Your task to perform on an android device: turn notification dots on Image 0: 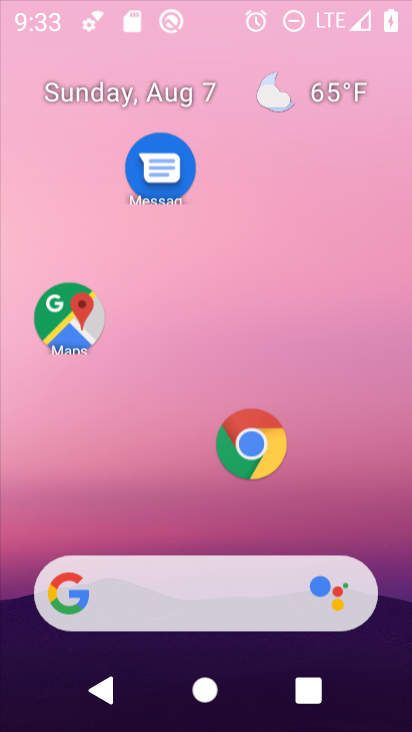
Step 0: press home button
Your task to perform on an android device: turn notification dots on Image 1: 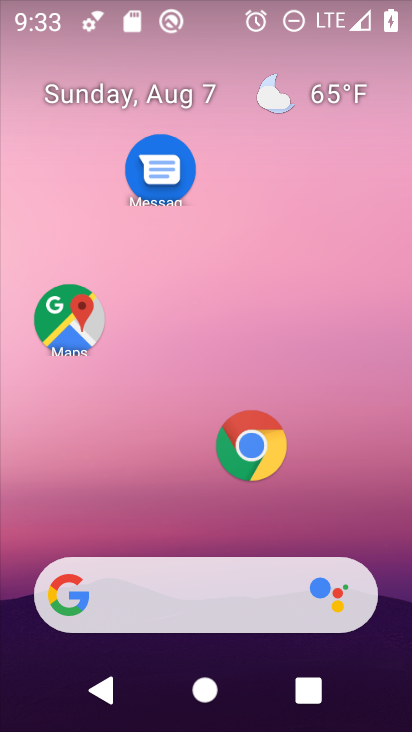
Step 1: drag from (302, 521) to (310, 54)
Your task to perform on an android device: turn notification dots on Image 2: 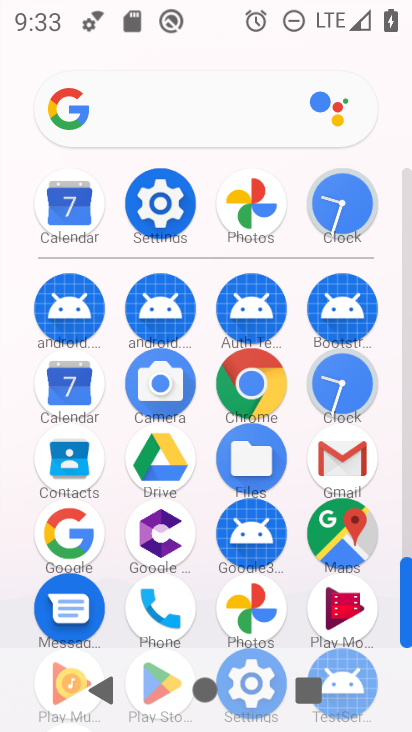
Step 2: click (155, 195)
Your task to perform on an android device: turn notification dots on Image 3: 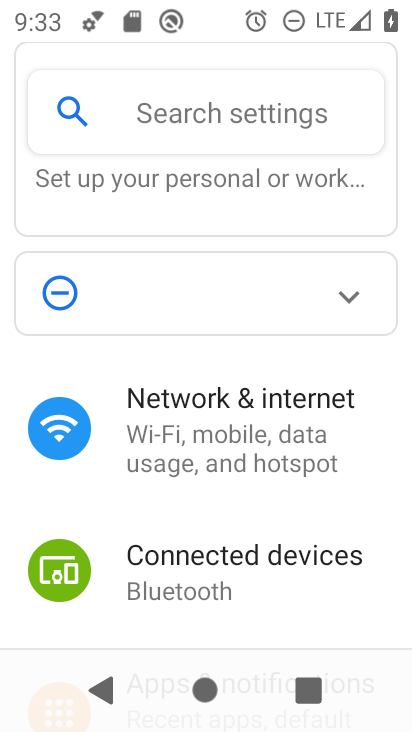
Step 3: drag from (259, 583) to (239, 154)
Your task to perform on an android device: turn notification dots on Image 4: 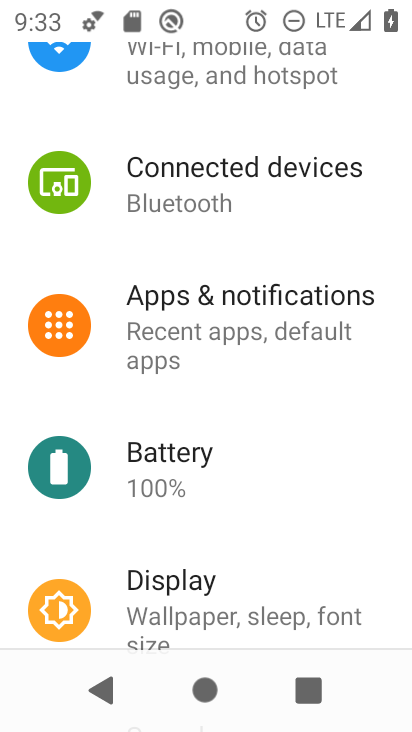
Step 4: click (220, 317)
Your task to perform on an android device: turn notification dots on Image 5: 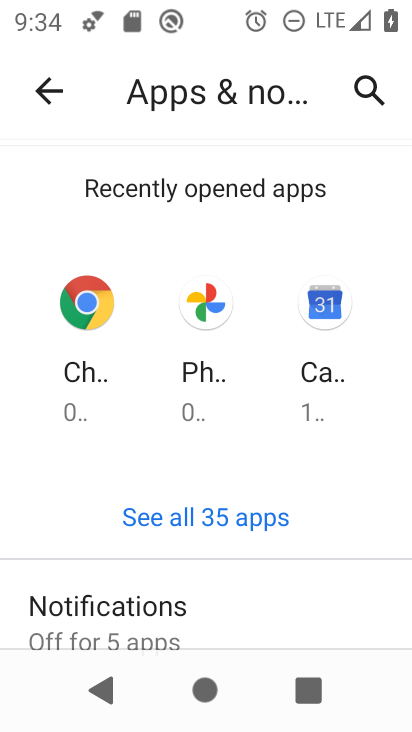
Step 5: click (213, 612)
Your task to perform on an android device: turn notification dots on Image 6: 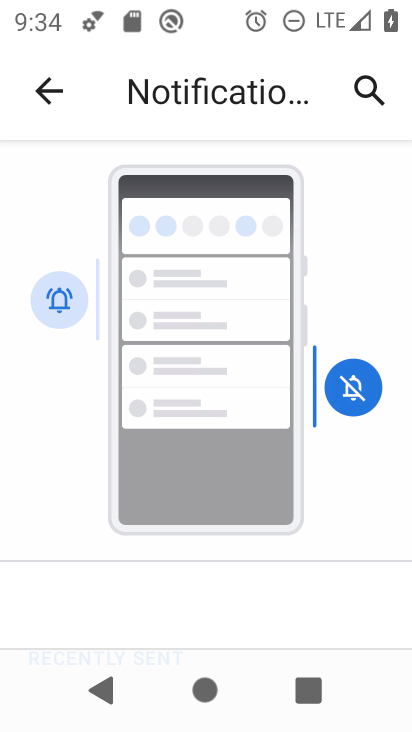
Step 6: drag from (214, 613) to (228, 82)
Your task to perform on an android device: turn notification dots on Image 7: 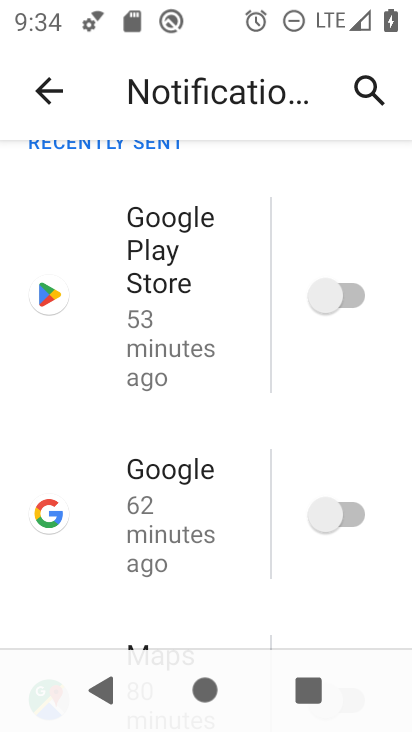
Step 7: drag from (224, 587) to (230, 97)
Your task to perform on an android device: turn notification dots on Image 8: 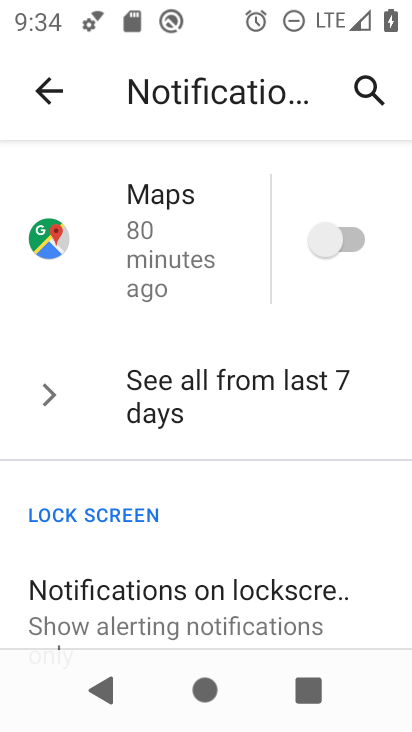
Step 8: drag from (203, 582) to (194, 107)
Your task to perform on an android device: turn notification dots on Image 9: 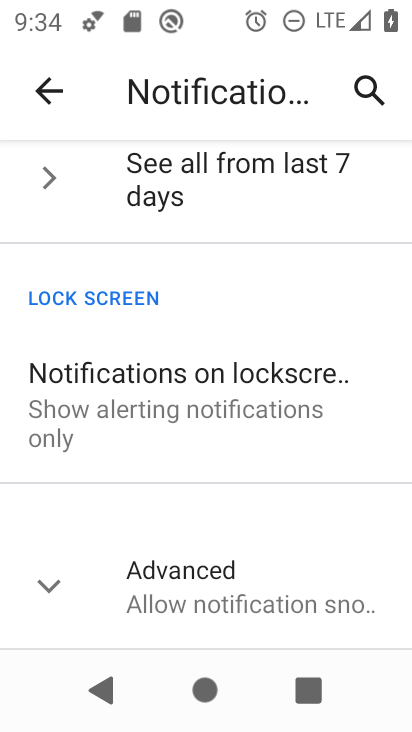
Step 9: click (50, 579)
Your task to perform on an android device: turn notification dots on Image 10: 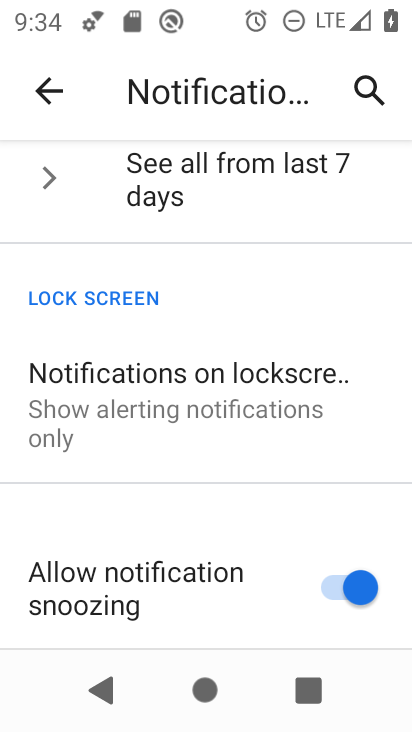
Step 10: task complete